Your task to perform on an android device: Go to ESPN.com Image 0: 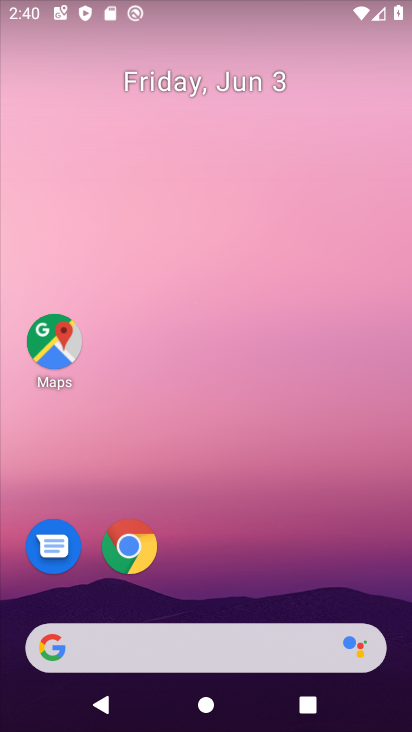
Step 0: click (141, 547)
Your task to perform on an android device: Go to ESPN.com Image 1: 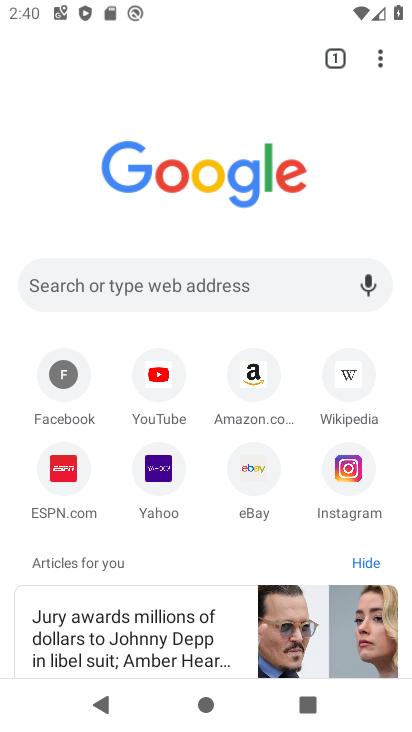
Step 1: click (75, 468)
Your task to perform on an android device: Go to ESPN.com Image 2: 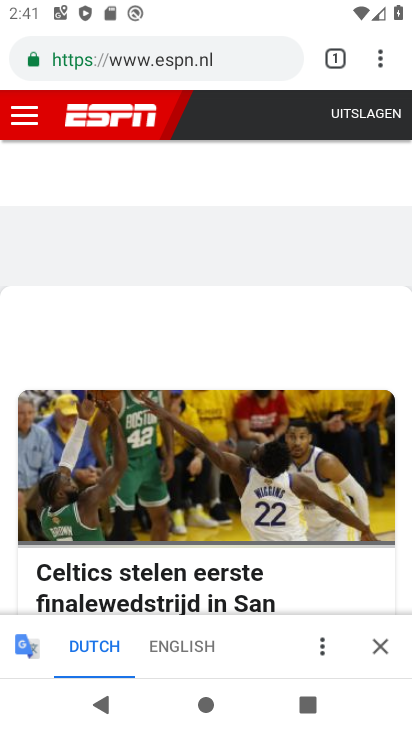
Step 2: task complete